Your task to perform on an android device: Go to network settings Image 0: 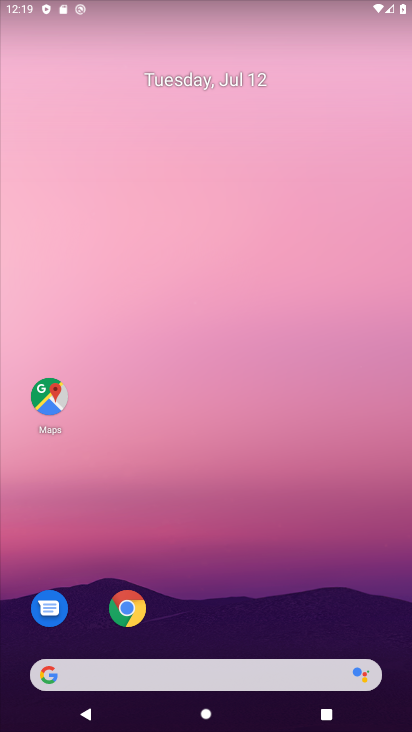
Step 0: drag from (214, 466) to (209, 242)
Your task to perform on an android device: Go to network settings Image 1: 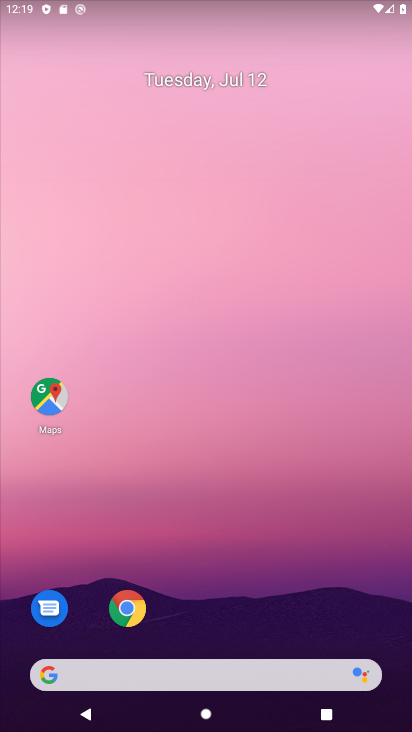
Step 1: drag from (273, 653) to (228, 109)
Your task to perform on an android device: Go to network settings Image 2: 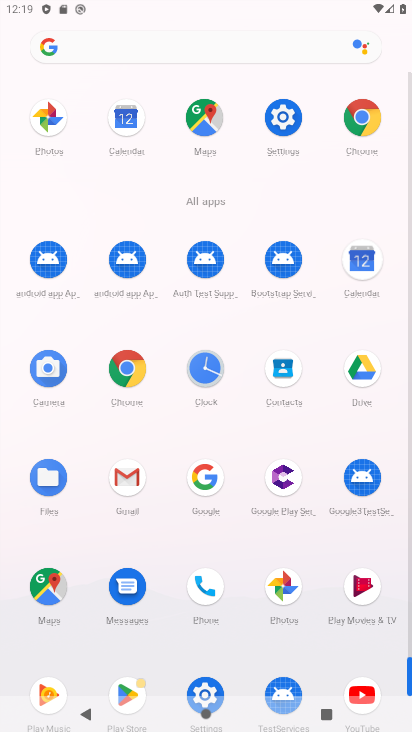
Step 2: click (292, 115)
Your task to perform on an android device: Go to network settings Image 3: 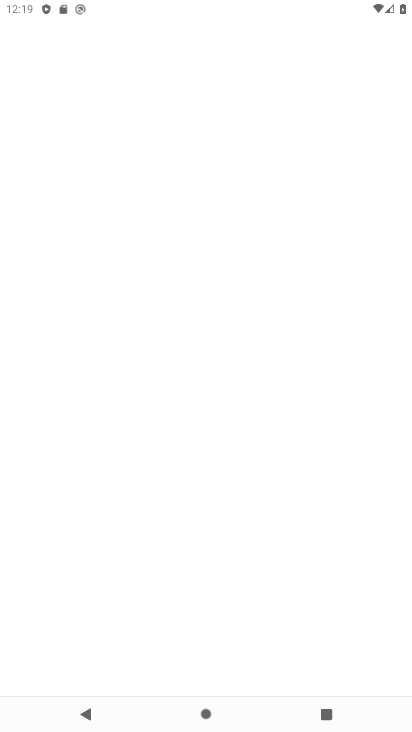
Step 3: click (292, 115)
Your task to perform on an android device: Go to network settings Image 4: 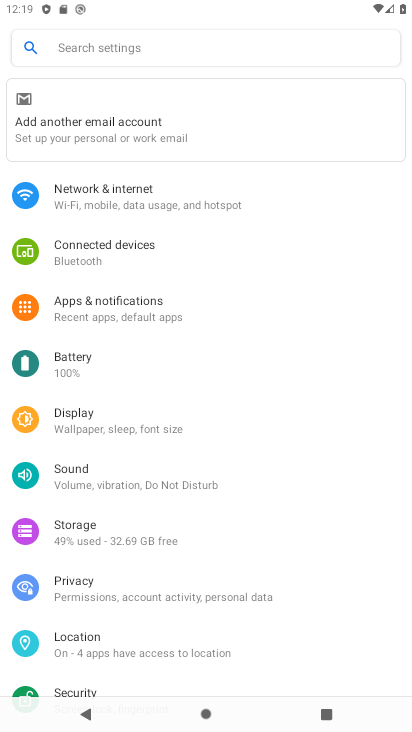
Step 4: click (122, 195)
Your task to perform on an android device: Go to network settings Image 5: 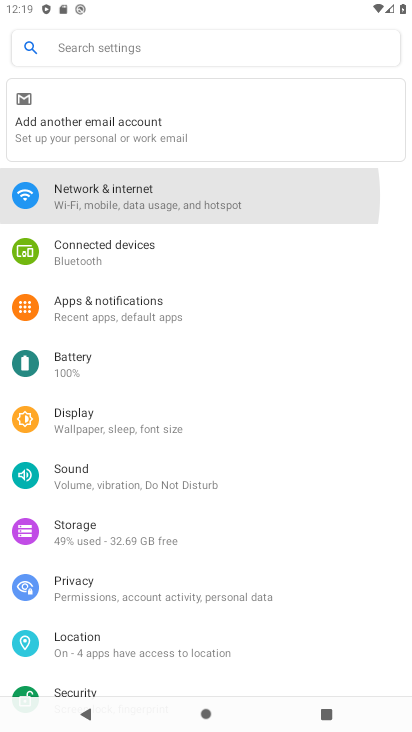
Step 5: click (122, 195)
Your task to perform on an android device: Go to network settings Image 6: 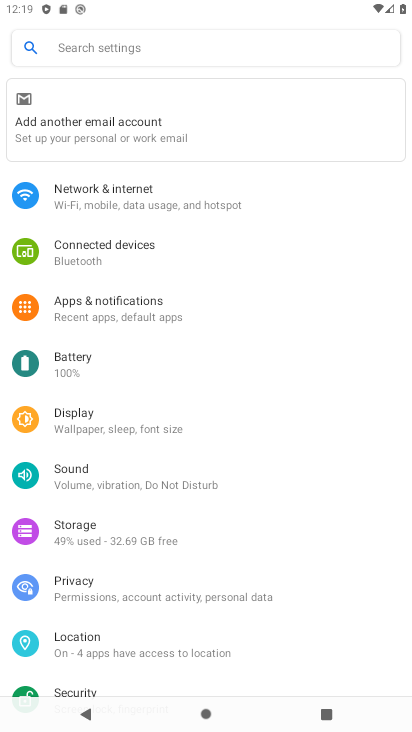
Step 6: click (122, 194)
Your task to perform on an android device: Go to network settings Image 7: 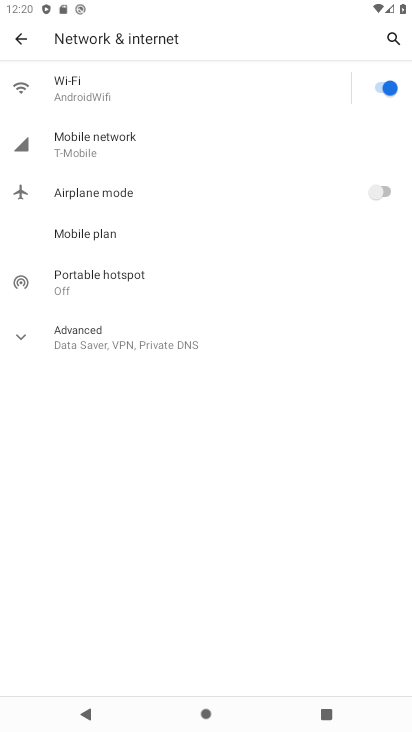
Step 7: task complete